Your task to perform on an android device: Show me the alarms in the clock app Image 0: 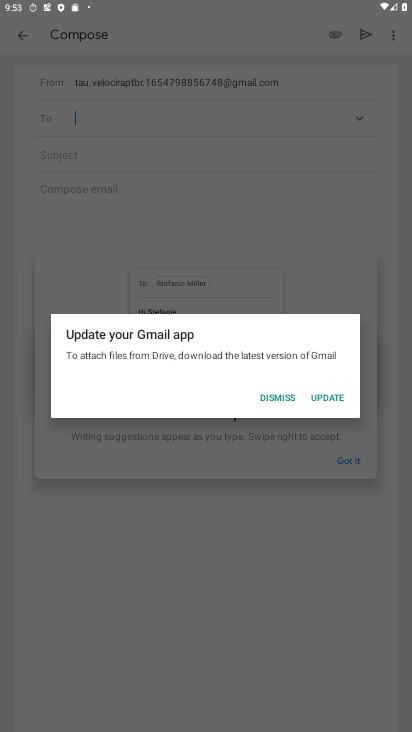
Step 0: press home button
Your task to perform on an android device: Show me the alarms in the clock app Image 1: 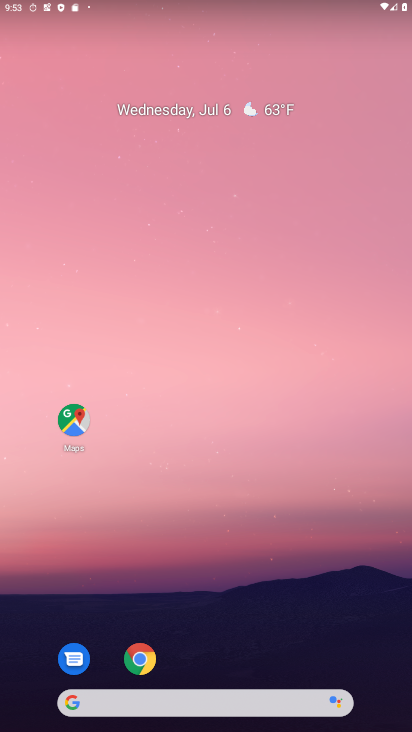
Step 1: drag from (216, 617) to (265, 111)
Your task to perform on an android device: Show me the alarms in the clock app Image 2: 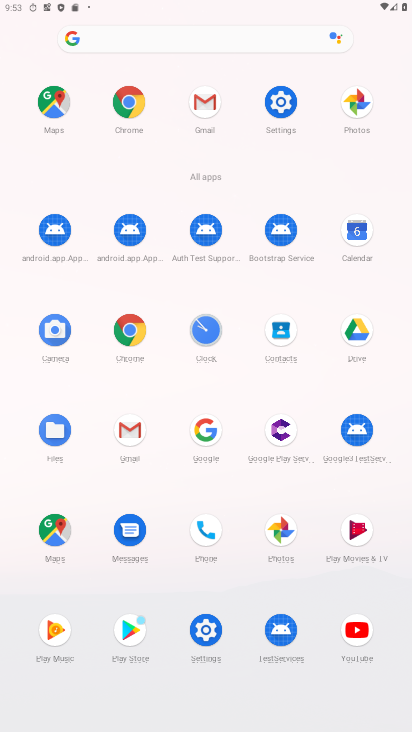
Step 2: click (202, 317)
Your task to perform on an android device: Show me the alarms in the clock app Image 3: 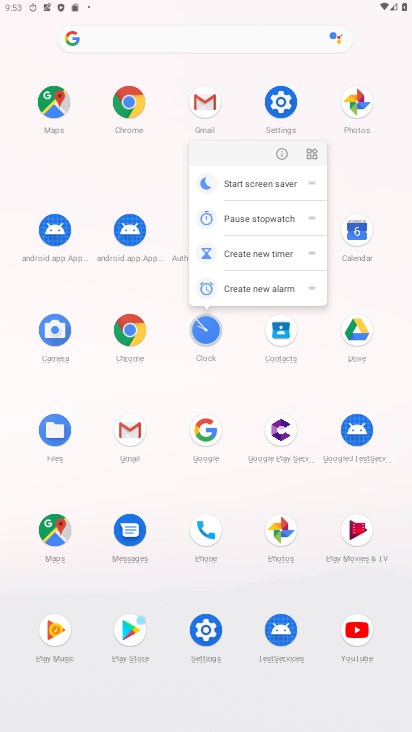
Step 3: click (281, 154)
Your task to perform on an android device: Show me the alarms in the clock app Image 4: 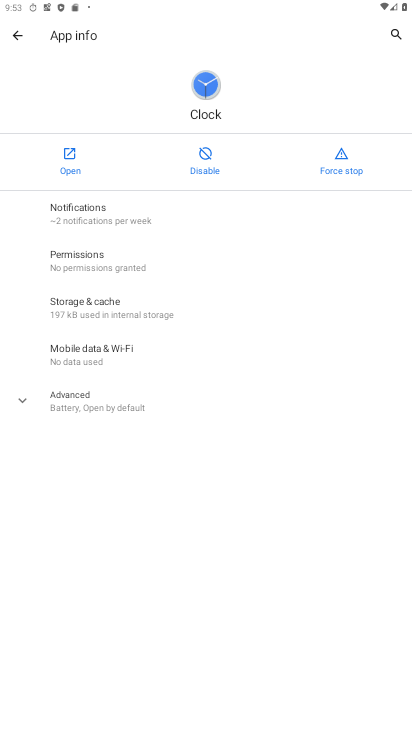
Step 4: click (69, 165)
Your task to perform on an android device: Show me the alarms in the clock app Image 5: 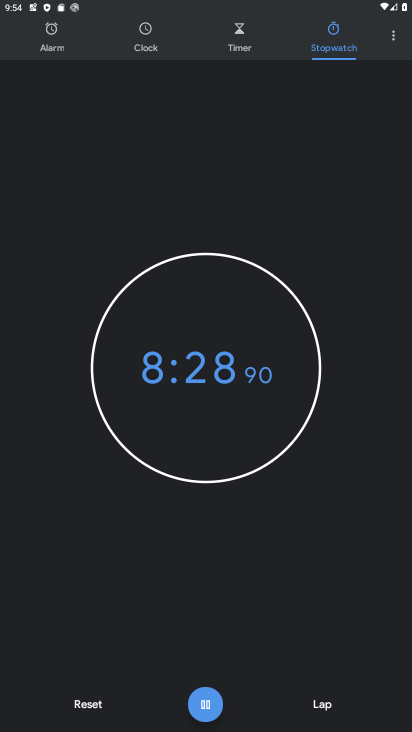
Step 5: click (80, 708)
Your task to perform on an android device: Show me the alarms in the clock app Image 6: 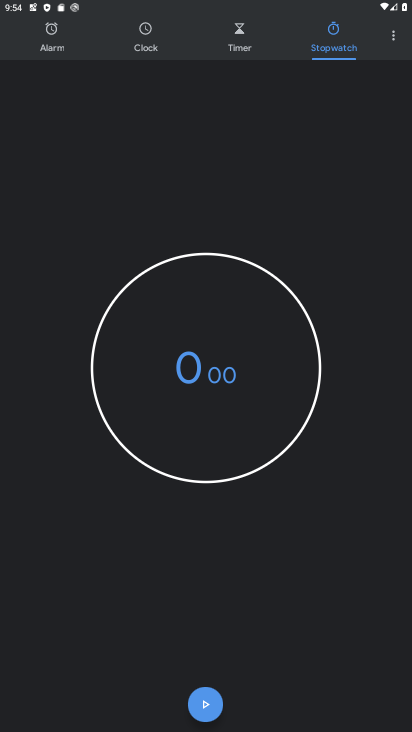
Step 6: click (44, 41)
Your task to perform on an android device: Show me the alarms in the clock app Image 7: 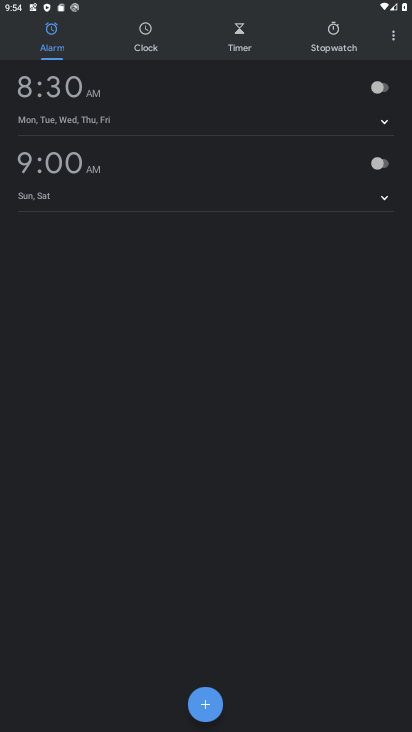
Step 7: task complete